Your task to perform on an android device: check google app version Image 0: 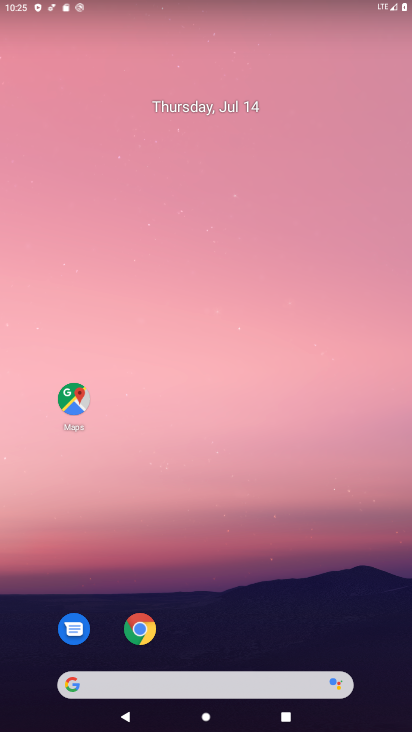
Step 0: drag from (205, 663) to (284, 98)
Your task to perform on an android device: check google app version Image 1: 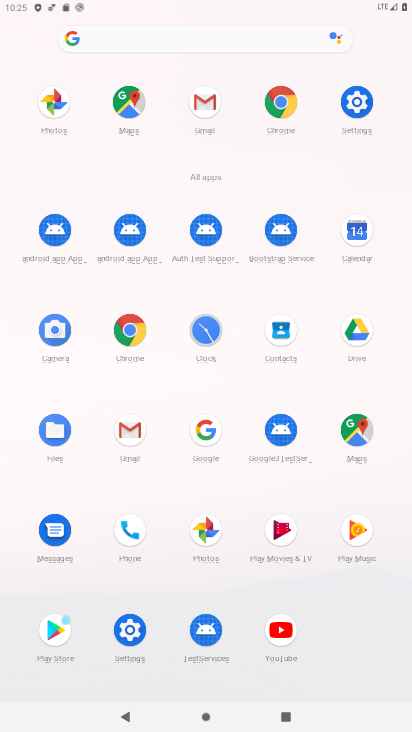
Step 1: click (128, 635)
Your task to perform on an android device: check google app version Image 2: 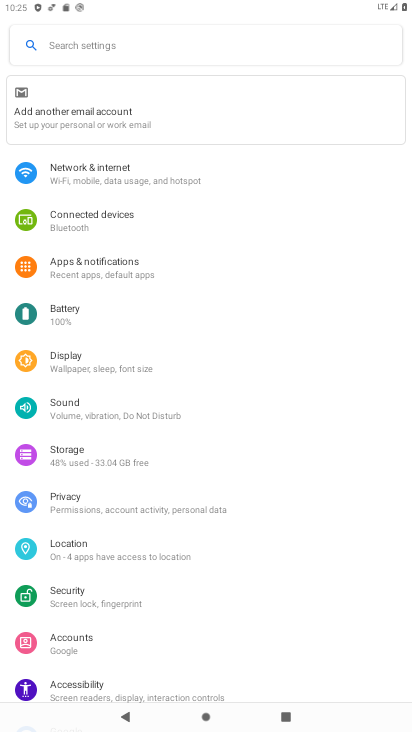
Step 2: click (124, 273)
Your task to perform on an android device: check google app version Image 3: 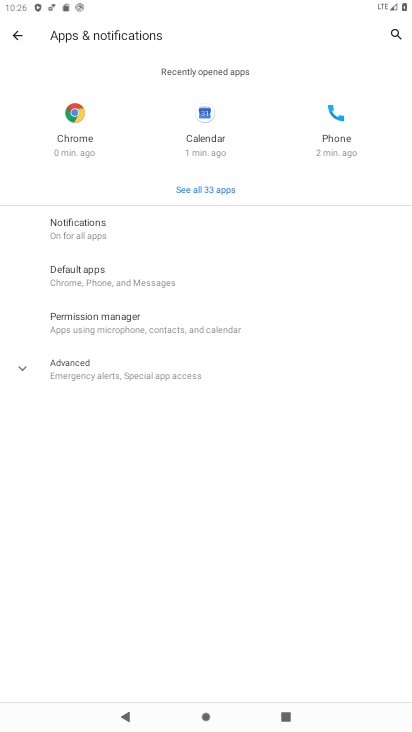
Step 3: click (212, 193)
Your task to perform on an android device: check google app version Image 4: 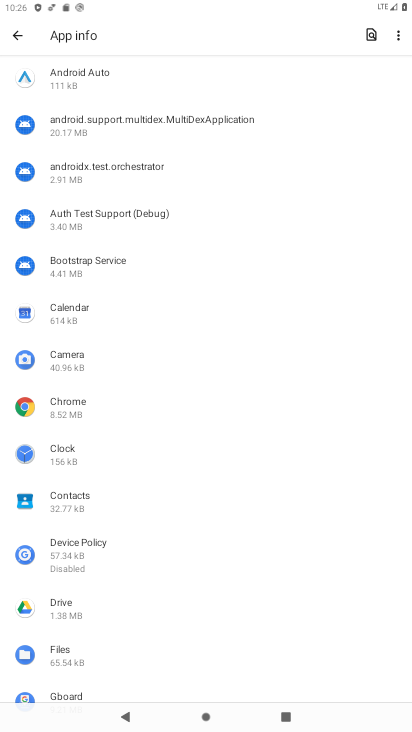
Step 4: drag from (175, 631) to (232, 209)
Your task to perform on an android device: check google app version Image 5: 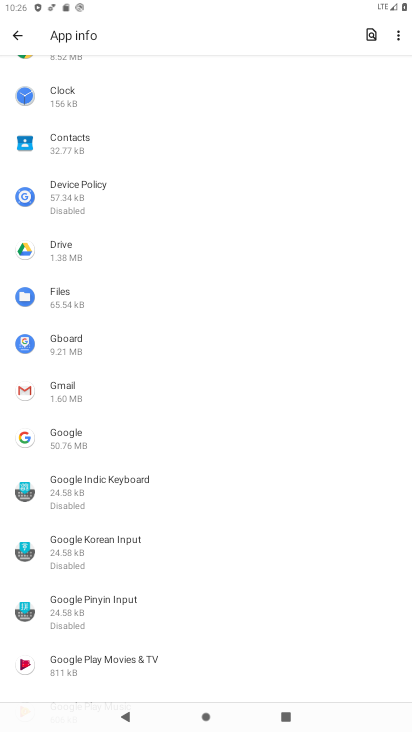
Step 5: click (103, 445)
Your task to perform on an android device: check google app version Image 6: 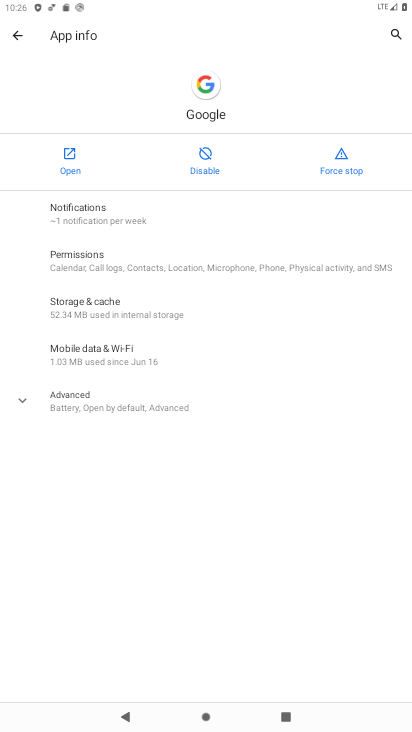
Step 6: click (146, 406)
Your task to perform on an android device: check google app version Image 7: 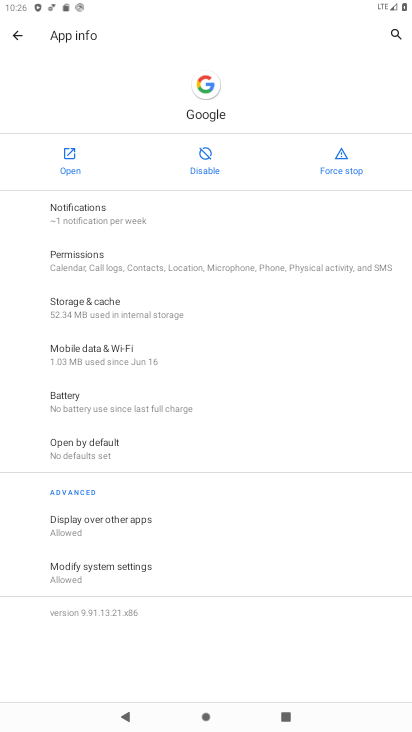
Step 7: task complete